Your task to perform on an android device: Go to CNN.com Image 0: 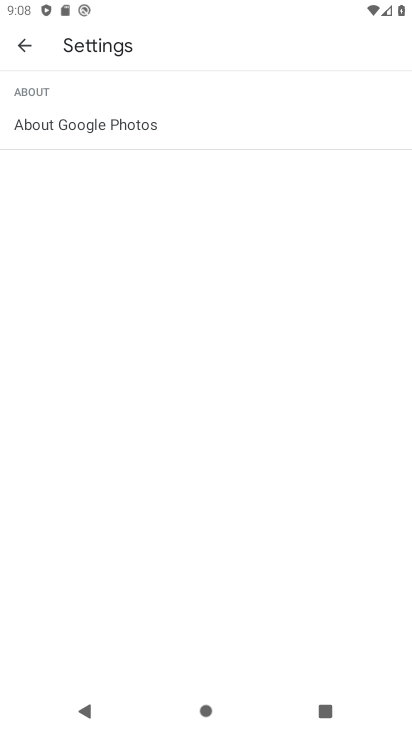
Step 0: press home button
Your task to perform on an android device: Go to CNN.com Image 1: 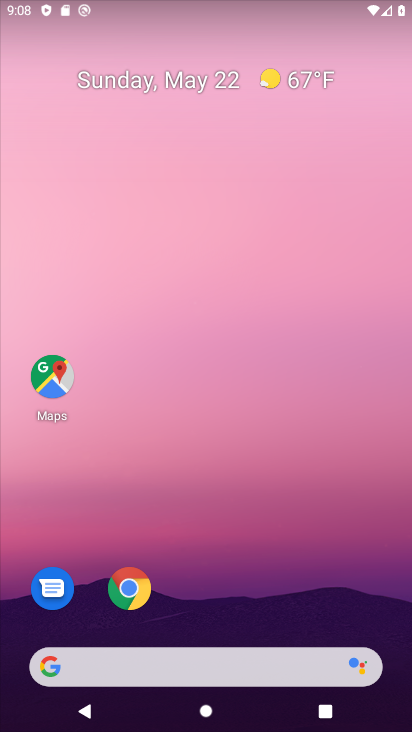
Step 1: click (117, 592)
Your task to perform on an android device: Go to CNN.com Image 2: 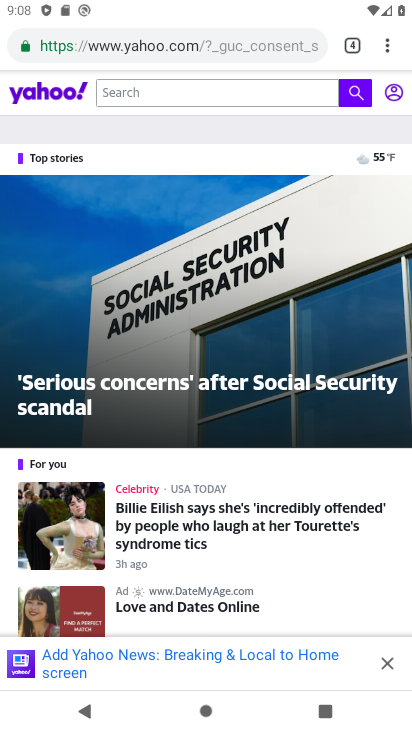
Step 2: click (348, 45)
Your task to perform on an android device: Go to CNN.com Image 3: 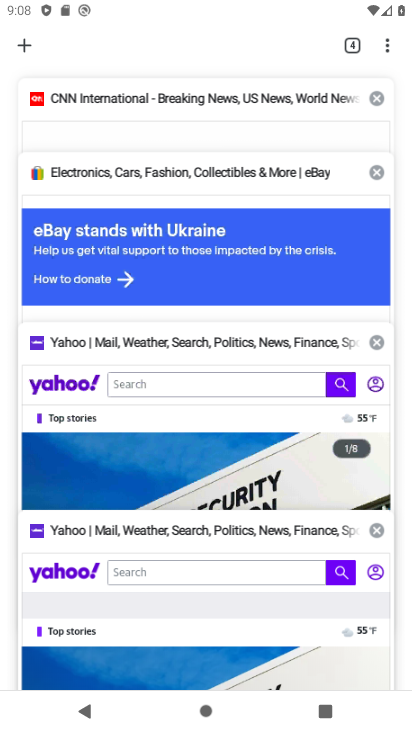
Step 3: click (100, 110)
Your task to perform on an android device: Go to CNN.com Image 4: 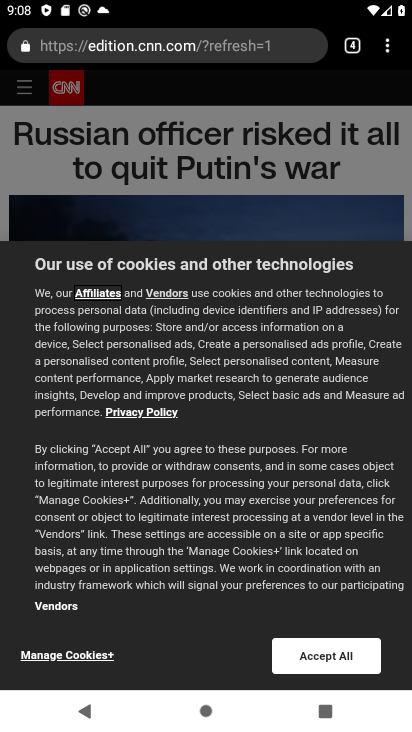
Step 4: task complete